Your task to perform on an android device: delete browsing data in the chrome app Image 0: 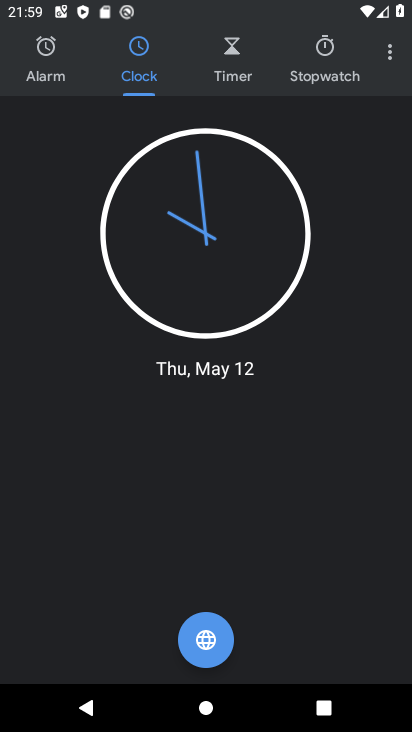
Step 0: press home button
Your task to perform on an android device: delete browsing data in the chrome app Image 1: 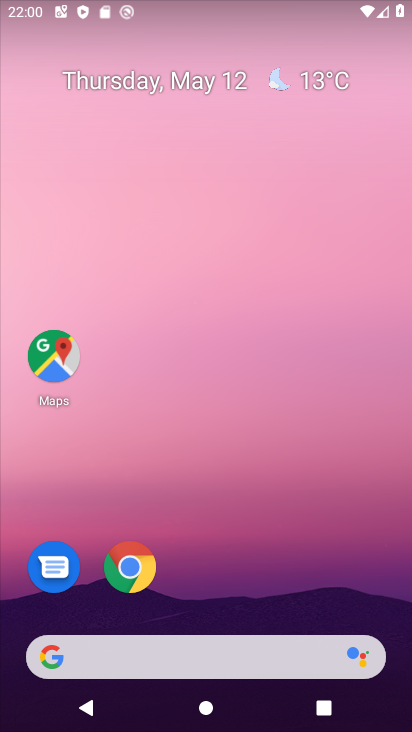
Step 1: click (125, 562)
Your task to perform on an android device: delete browsing data in the chrome app Image 2: 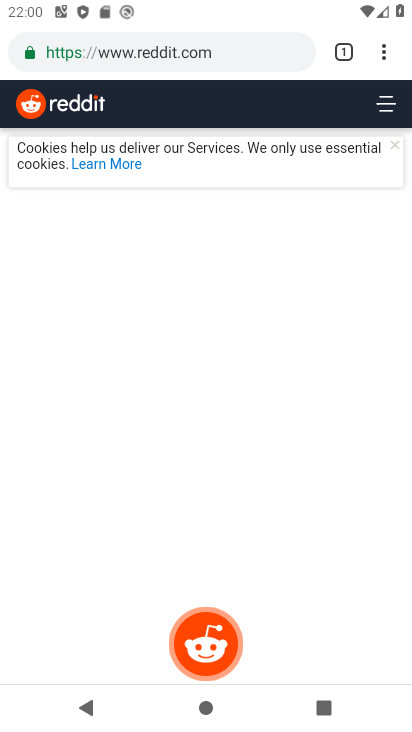
Step 2: click (379, 47)
Your task to perform on an android device: delete browsing data in the chrome app Image 3: 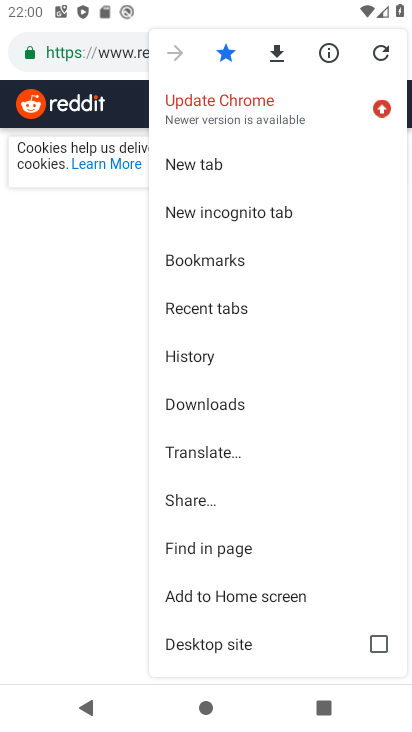
Step 3: click (230, 352)
Your task to perform on an android device: delete browsing data in the chrome app Image 4: 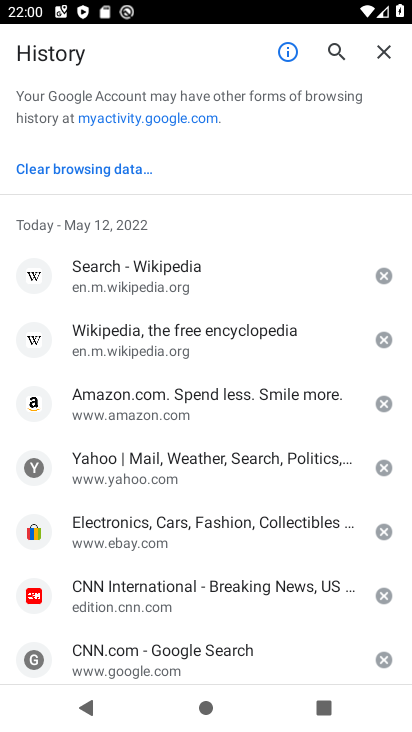
Step 4: click (81, 172)
Your task to perform on an android device: delete browsing data in the chrome app Image 5: 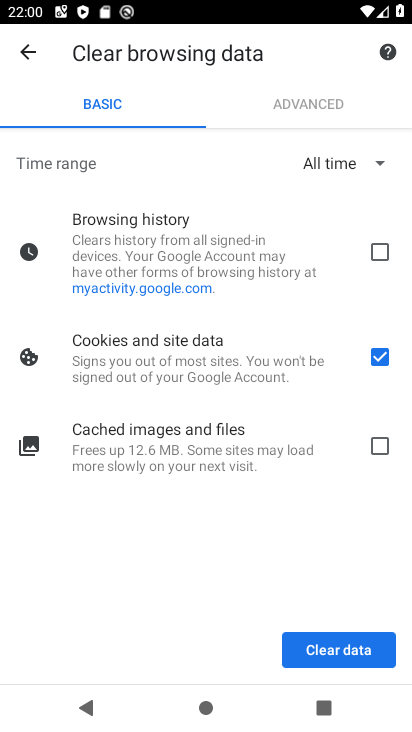
Step 5: click (380, 255)
Your task to perform on an android device: delete browsing data in the chrome app Image 6: 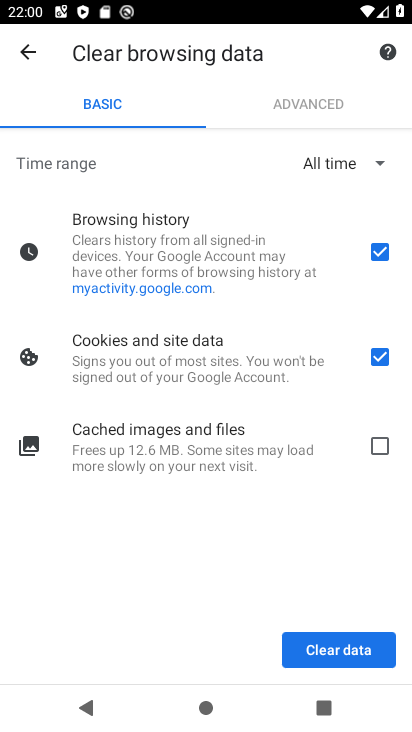
Step 6: click (381, 442)
Your task to perform on an android device: delete browsing data in the chrome app Image 7: 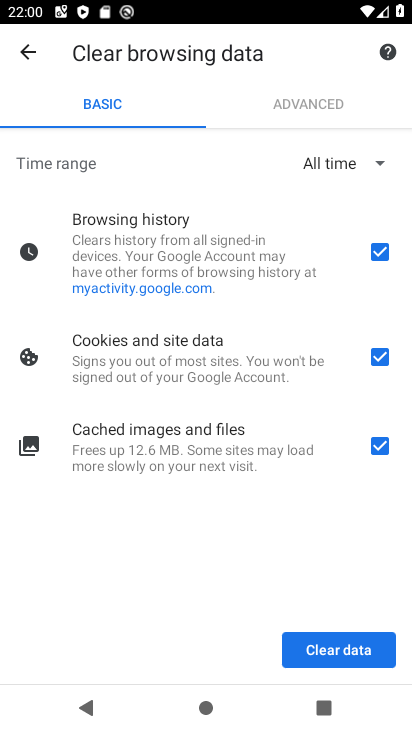
Step 7: click (339, 652)
Your task to perform on an android device: delete browsing data in the chrome app Image 8: 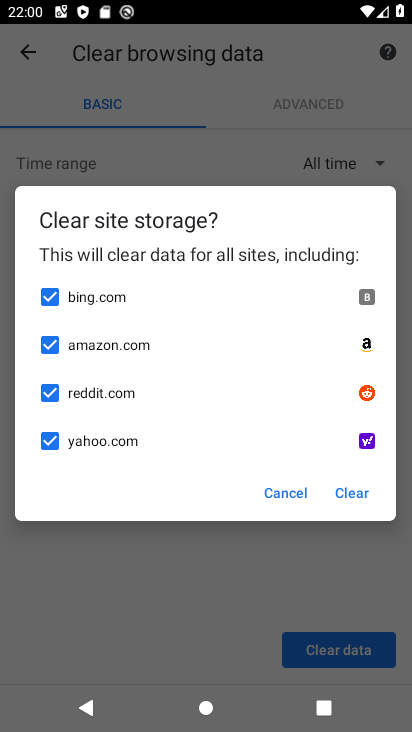
Step 8: click (362, 493)
Your task to perform on an android device: delete browsing data in the chrome app Image 9: 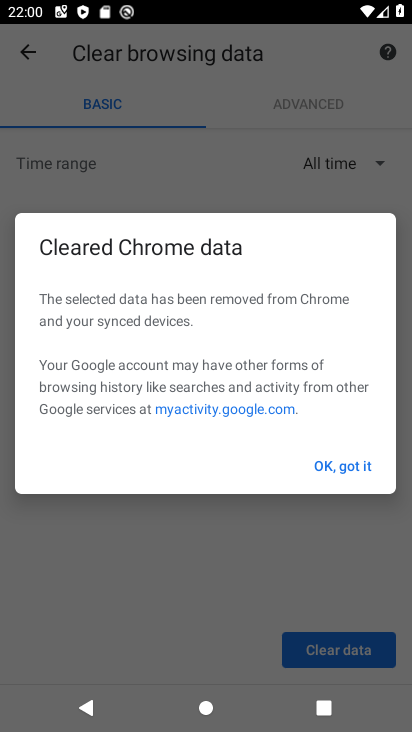
Step 9: click (348, 470)
Your task to perform on an android device: delete browsing data in the chrome app Image 10: 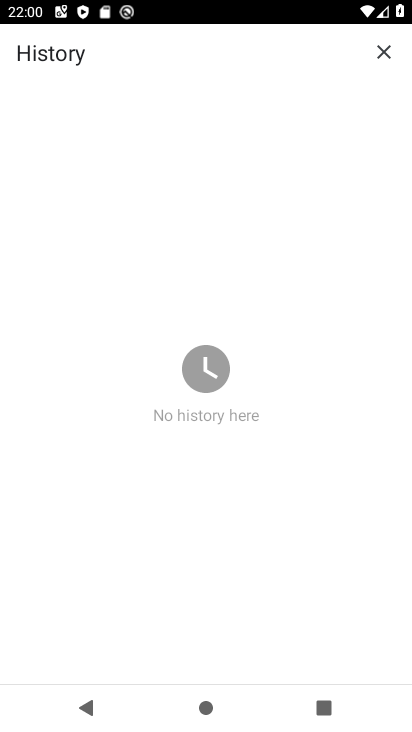
Step 10: task complete